Your task to perform on an android device: turn on location history Image 0: 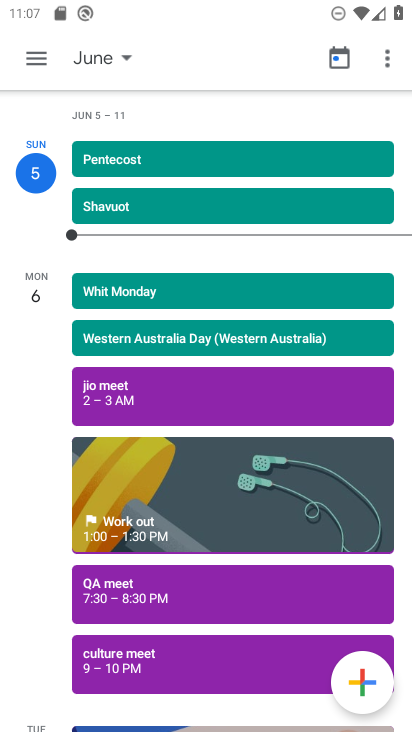
Step 0: press back button
Your task to perform on an android device: turn on location history Image 1: 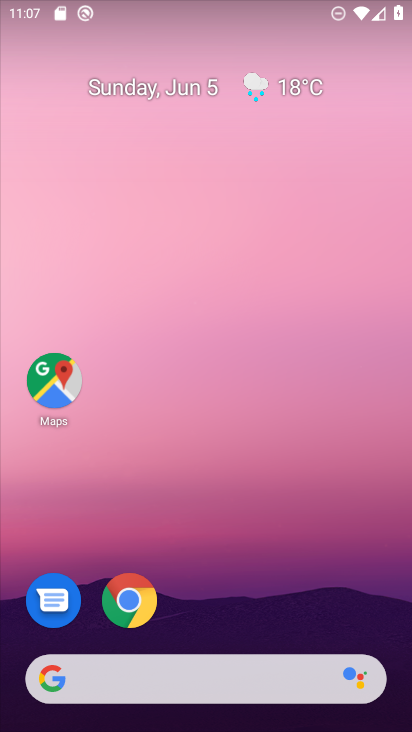
Step 1: drag from (259, 579) to (264, 173)
Your task to perform on an android device: turn on location history Image 2: 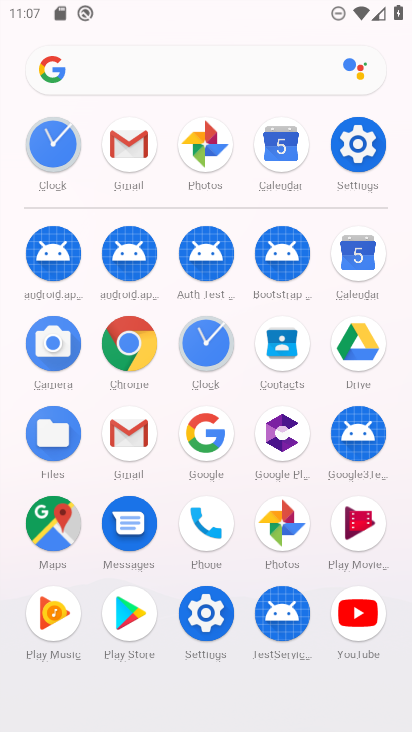
Step 2: click (357, 140)
Your task to perform on an android device: turn on location history Image 3: 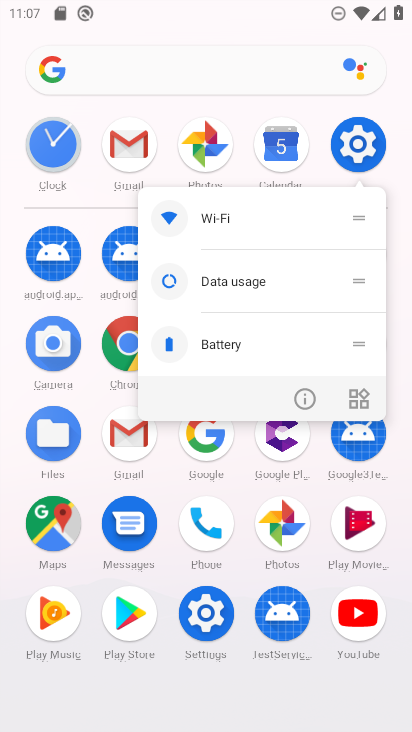
Step 3: click (361, 138)
Your task to perform on an android device: turn on location history Image 4: 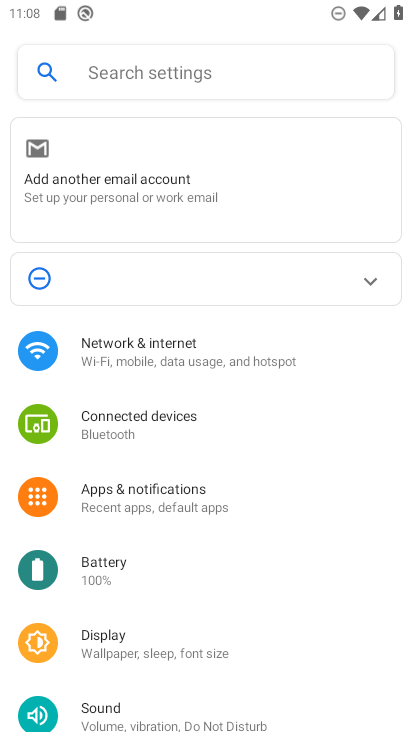
Step 4: drag from (217, 629) to (231, 107)
Your task to perform on an android device: turn on location history Image 5: 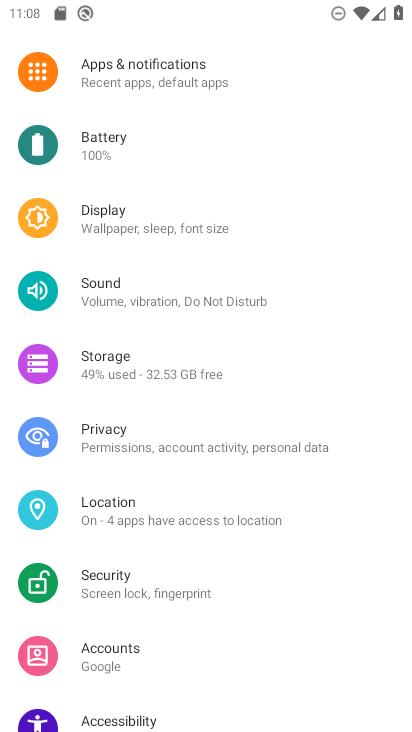
Step 5: click (114, 506)
Your task to perform on an android device: turn on location history Image 6: 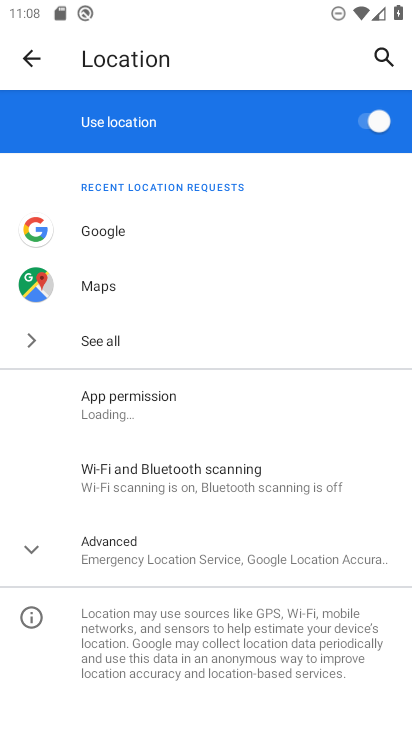
Step 6: click (142, 552)
Your task to perform on an android device: turn on location history Image 7: 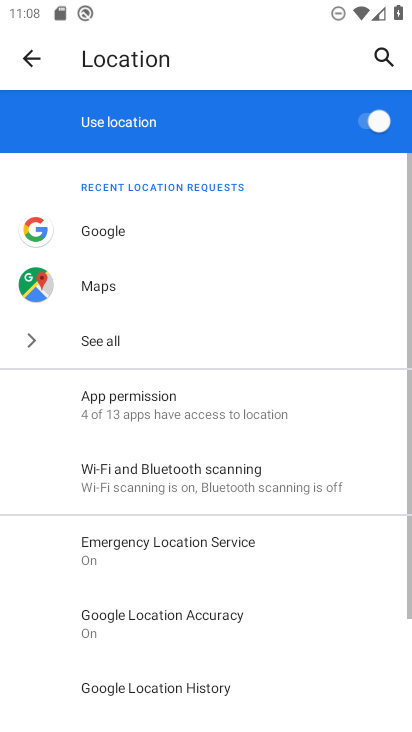
Step 7: click (164, 693)
Your task to perform on an android device: turn on location history Image 8: 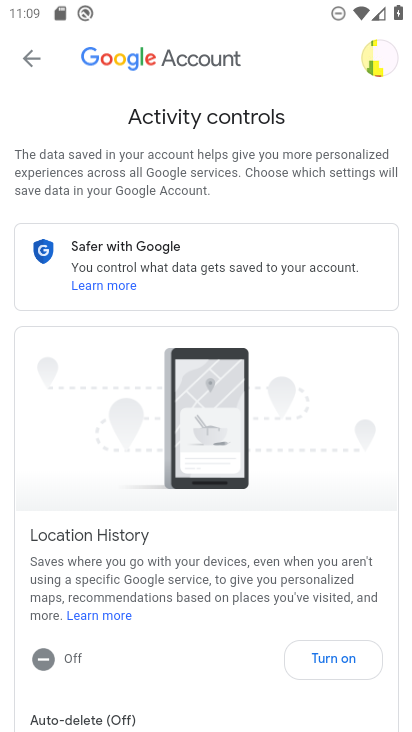
Step 8: click (353, 660)
Your task to perform on an android device: turn on location history Image 9: 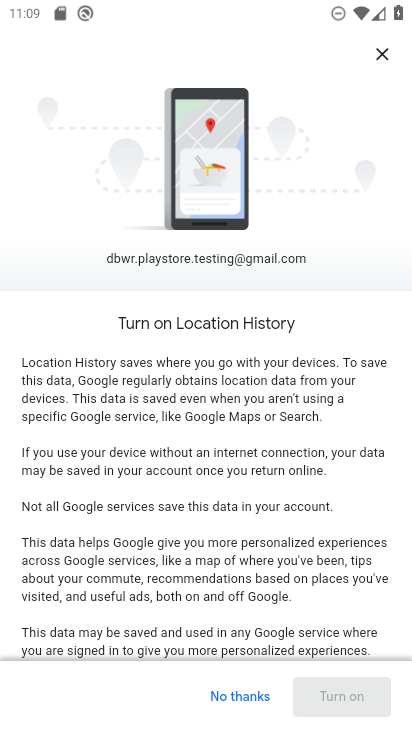
Step 9: drag from (234, 497) to (234, 16)
Your task to perform on an android device: turn on location history Image 10: 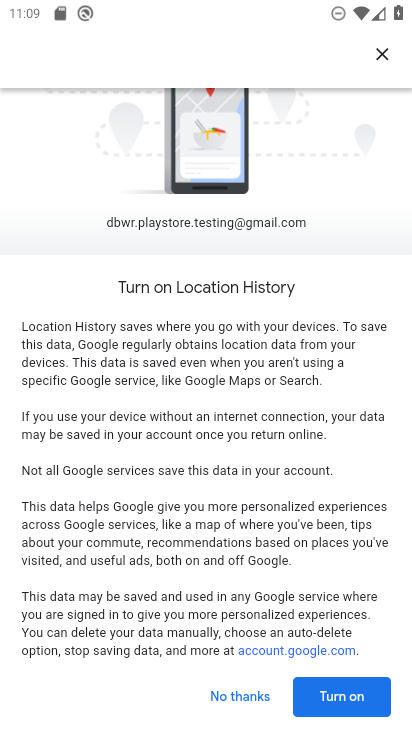
Step 10: drag from (191, 546) to (225, 127)
Your task to perform on an android device: turn on location history Image 11: 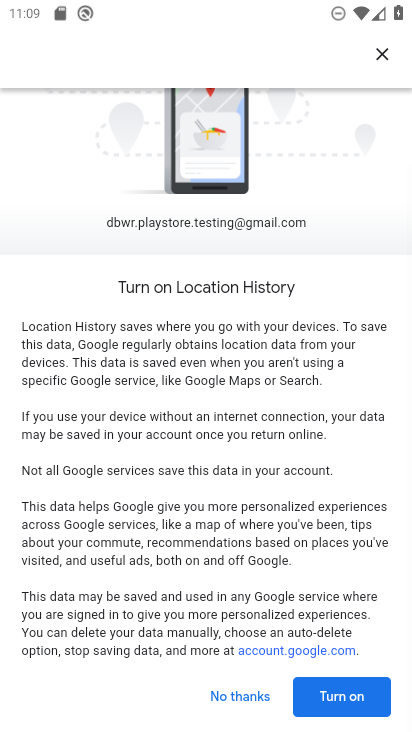
Step 11: click (344, 696)
Your task to perform on an android device: turn on location history Image 12: 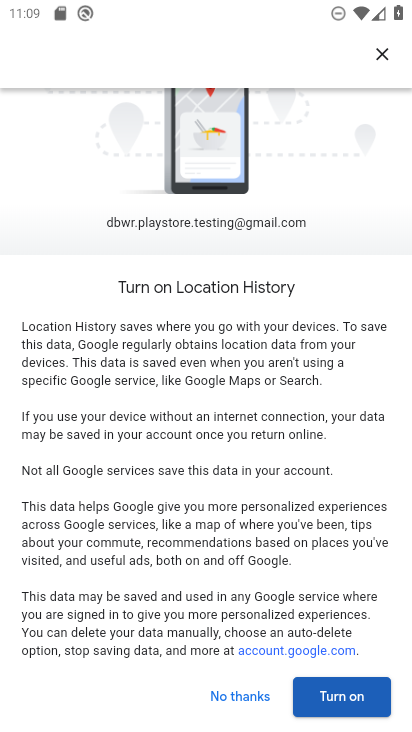
Step 12: click (330, 694)
Your task to perform on an android device: turn on location history Image 13: 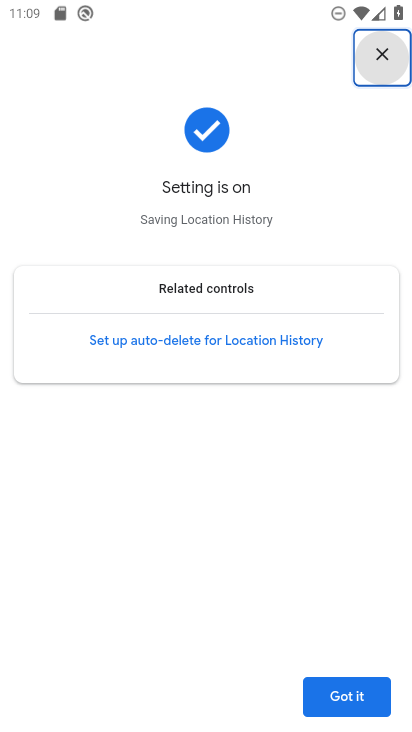
Step 13: task complete